Your task to perform on an android device: turn on data saver in the chrome app Image 0: 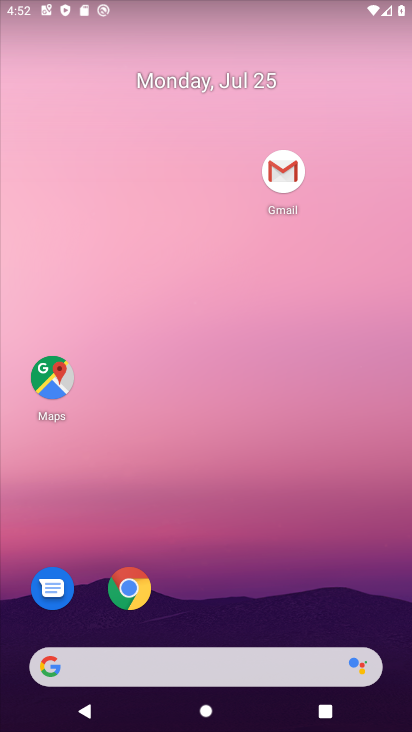
Step 0: drag from (316, 632) to (291, 90)
Your task to perform on an android device: turn on data saver in the chrome app Image 1: 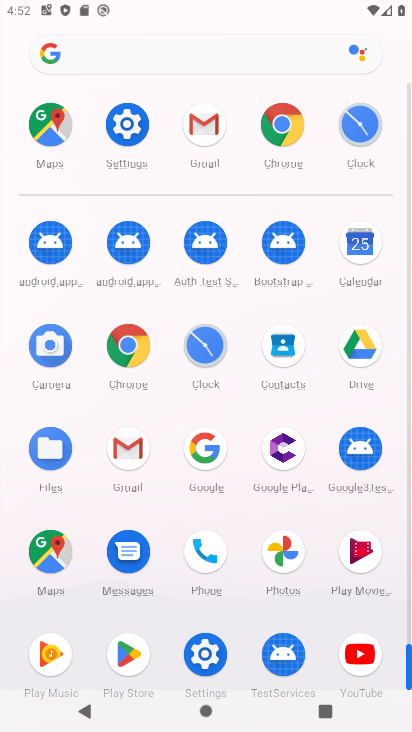
Step 1: click (282, 122)
Your task to perform on an android device: turn on data saver in the chrome app Image 2: 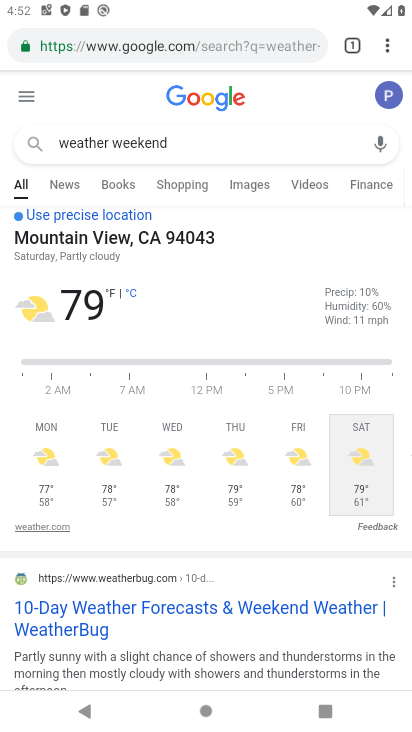
Step 2: drag from (393, 44) to (245, 498)
Your task to perform on an android device: turn on data saver in the chrome app Image 3: 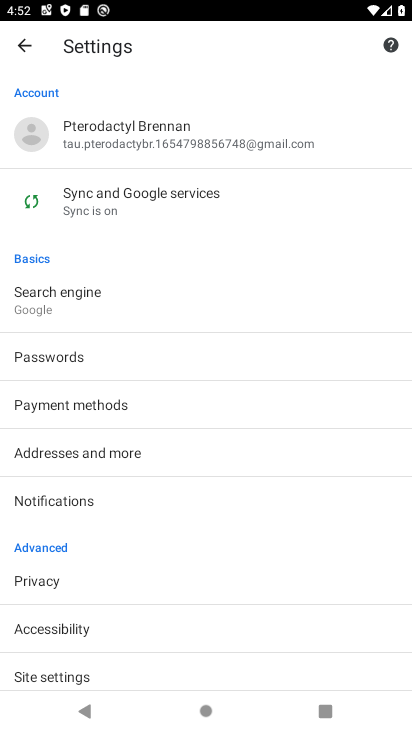
Step 3: drag from (162, 578) to (182, 380)
Your task to perform on an android device: turn on data saver in the chrome app Image 4: 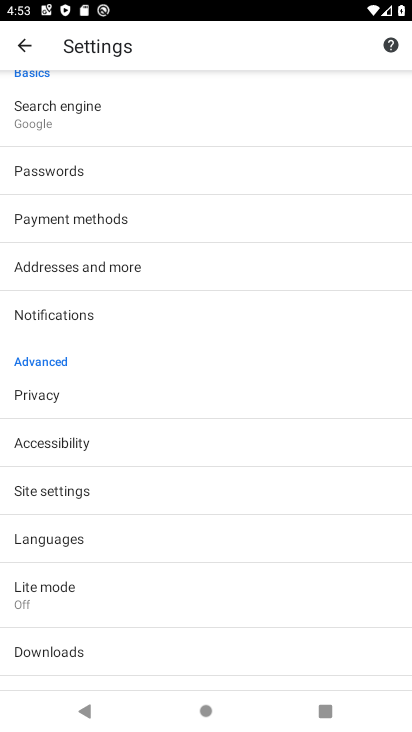
Step 4: click (54, 606)
Your task to perform on an android device: turn on data saver in the chrome app Image 5: 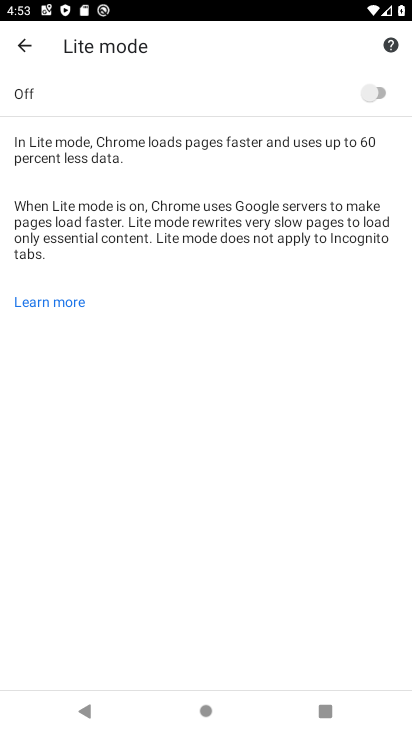
Step 5: click (385, 88)
Your task to perform on an android device: turn on data saver in the chrome app Image 6: 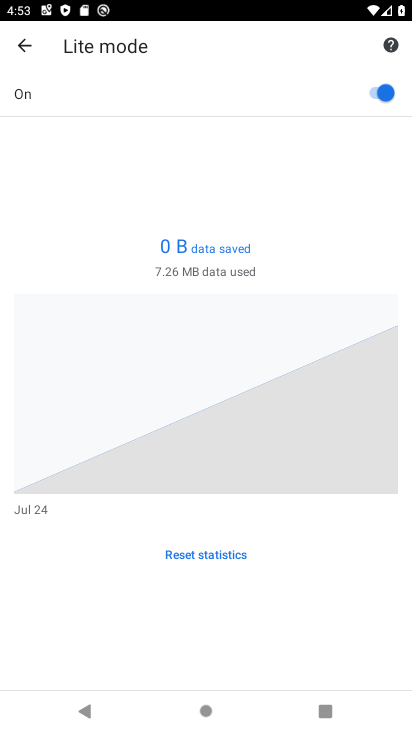
Step 6: task complete